Your task to perform on an android device: change keyboard looks Image 0: 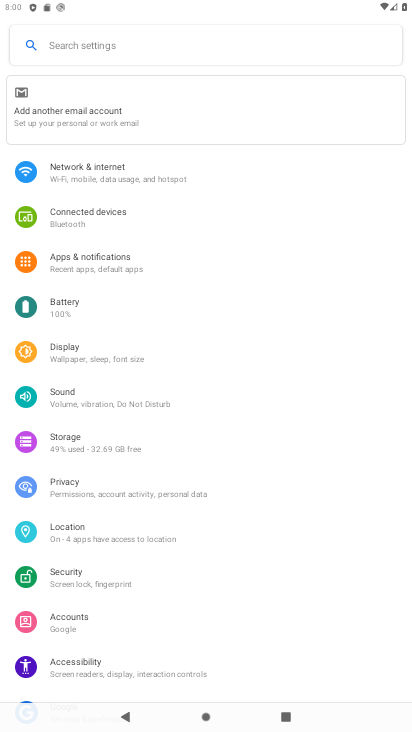
Step 0: drag from (244, 680) to (212, 394)
Your task to perform on an android device: change keyboard looks Image 1: 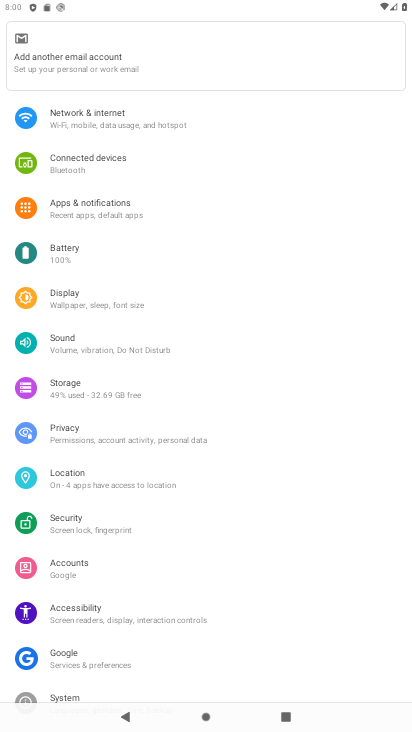
Step 1: click (64, 691)
Your task to perform on an android device: change keyboard looks Image 2: 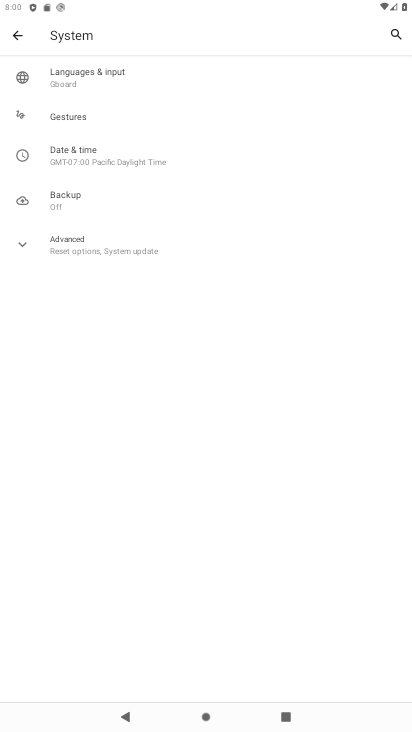
Step 2: click (99, 73)
Your task to perform on an android device: change keyboard looks Image 3: 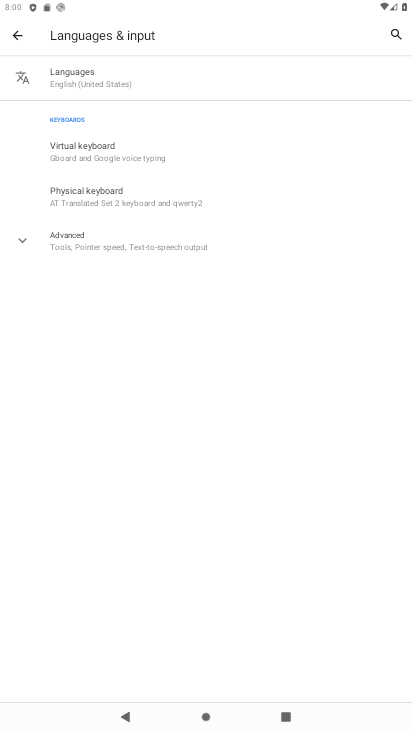
Step 3: click (89, 149)
Your task to perform on an android device: change keyboard looks Image 4: 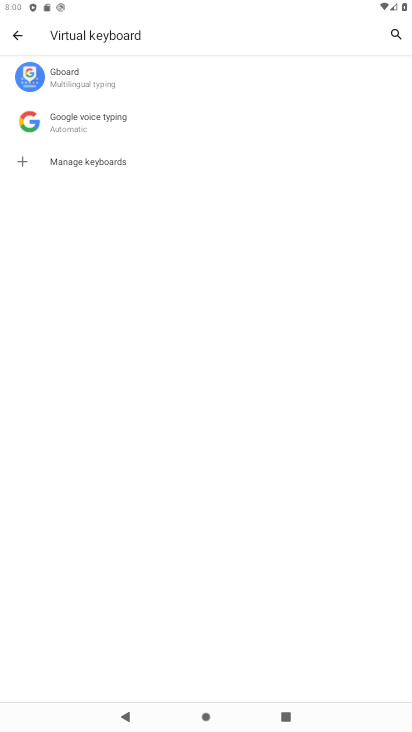
Step 4: click (132, 81)
Your task to perform on an android device: change keyboard looks Image 5: 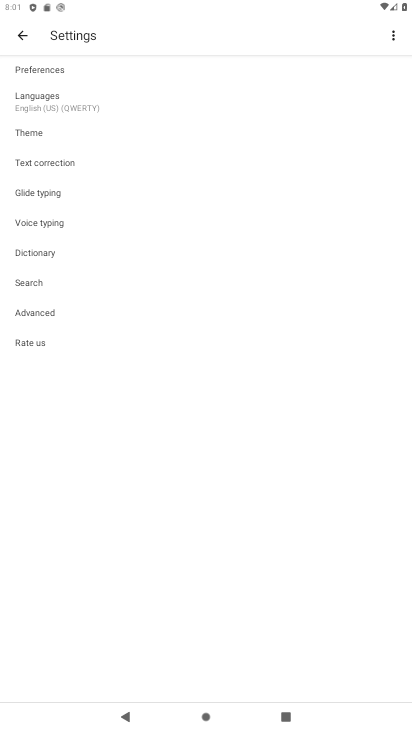
Step 5: click (97, 127)
Your task to perform on an android device: change keyboard looks Image 6: 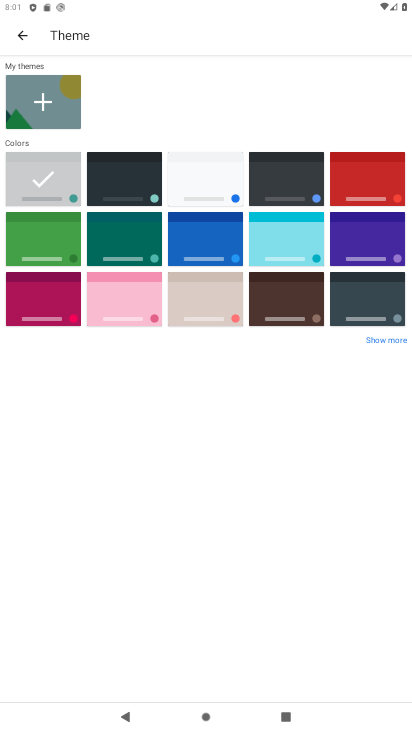
Step 6: click (275, 287)
Your task to perform on an android device: change keyboard looks Image 7: 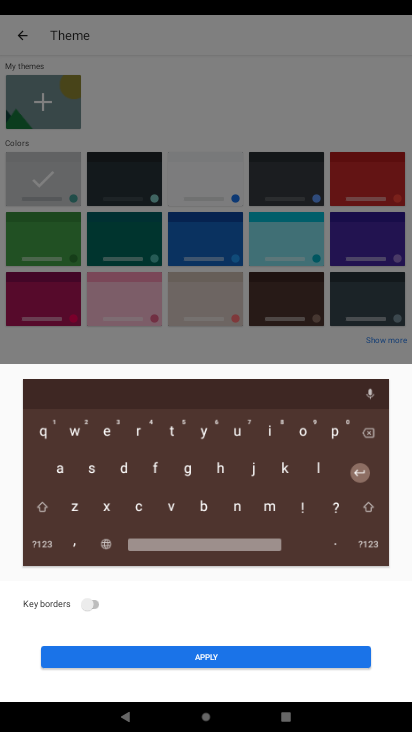
Step 7: click (248, 661)
Your task to perform on an android device: change keyboard looks Image 8: 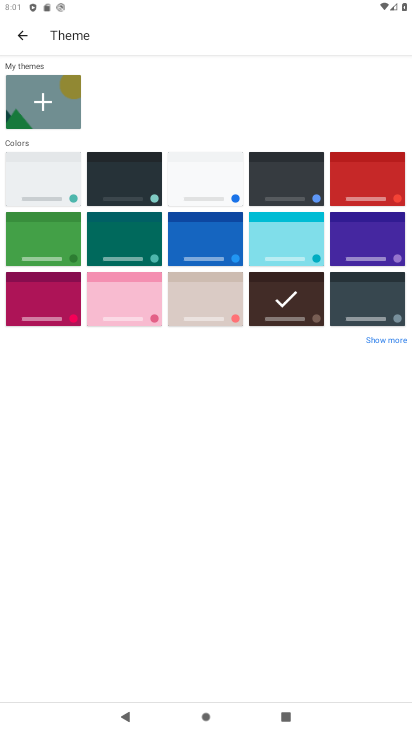
Step 8: task complete